Your task to perform on an android device: turn off improve location accuracy Image 0: 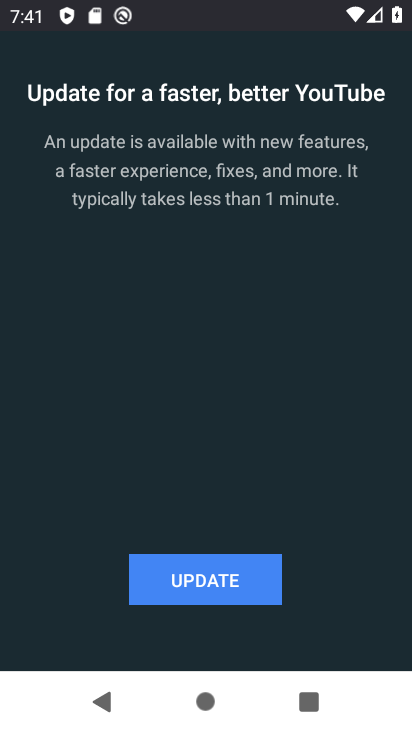
Step 0: press home button
Your task to perform on an android device: turn off improve location accuracy Image 1: 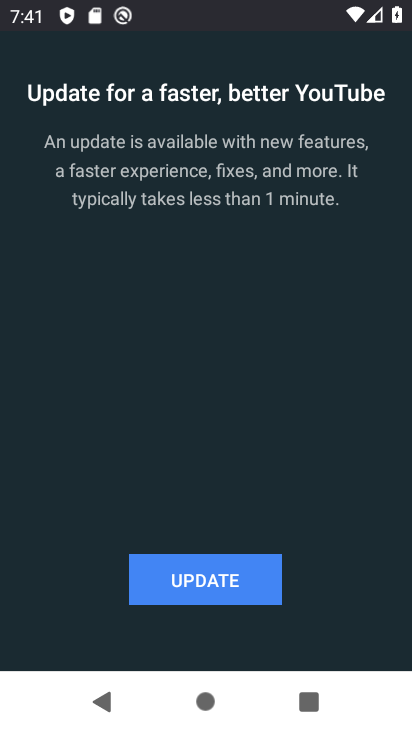
Step 1: press home button
Your task to perform on an android device: turn off improve location accuracy Image 2: 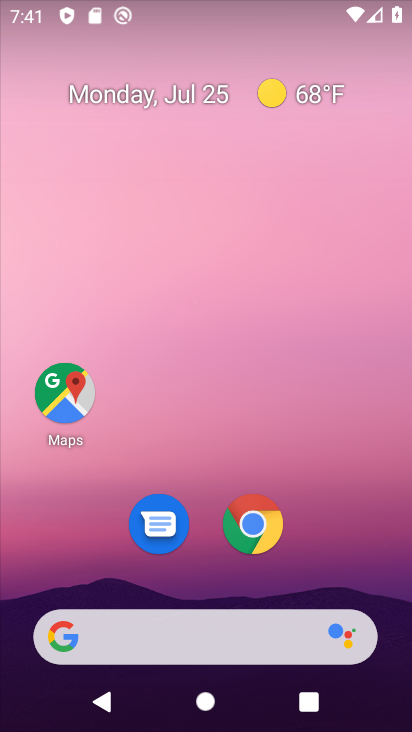
Step 2: drag from (318, 575) to (281, 32)
Your task to perform on an android device: turn off improve location accuracy Image 3: 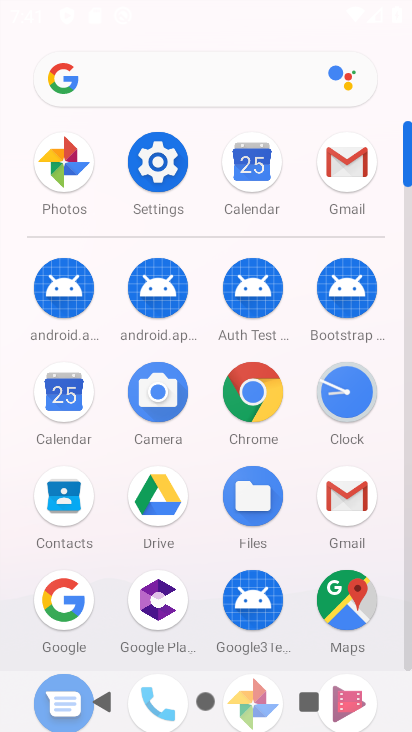
Step 3: click (166, 155)
Your task to perform on an android device: turn off improve location accuracy Image 4: 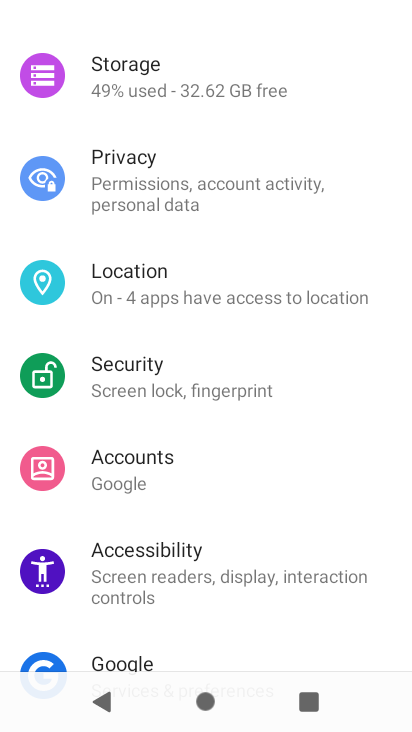
Step 4: click (210, 277)
Your task to perform on an android device: turn off improve location accuracy Image 5: 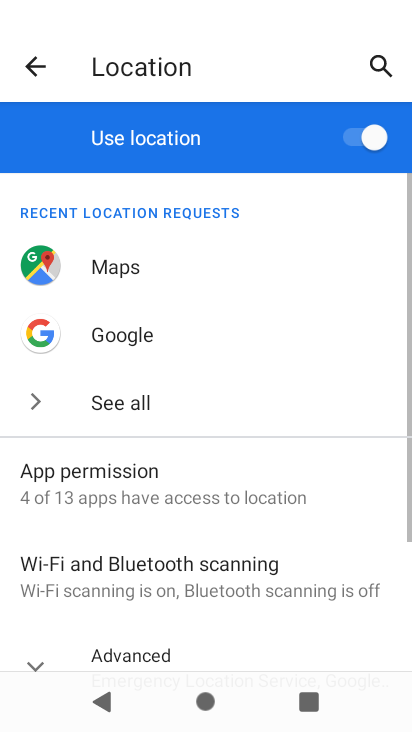
Step 5: click (225, 502)
Your task to perform on an android device: turn off improve location accuracy Image 6: 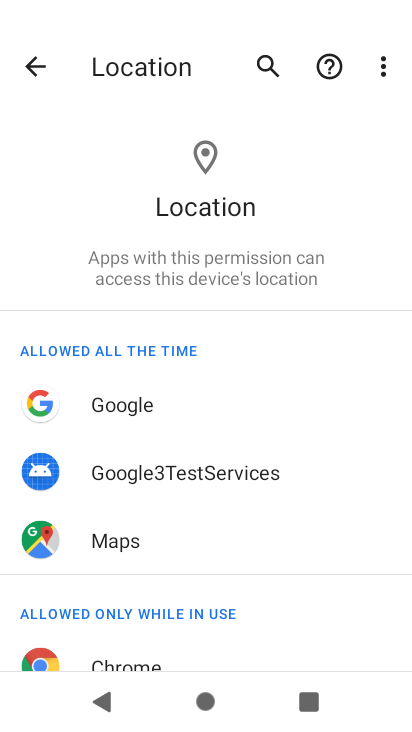
Step 6: click (33, 61)
Your task to perform on an android device: turn off improve location accuracy Image 7: 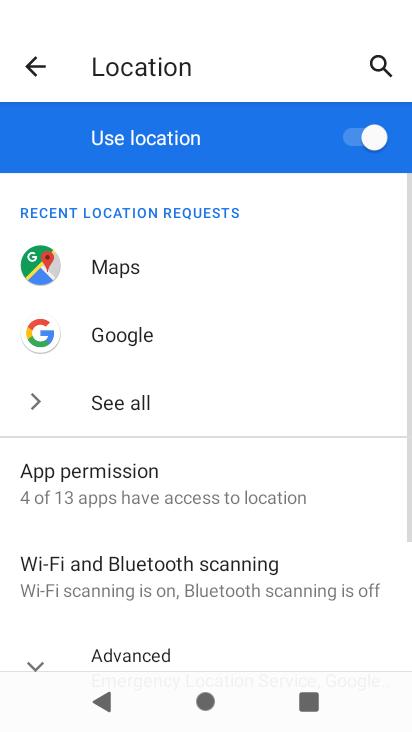
Step 7: drag from (159, 508) to (155, 188)
Your task to perform on an android device: turn off improve location accuracy Image 8: 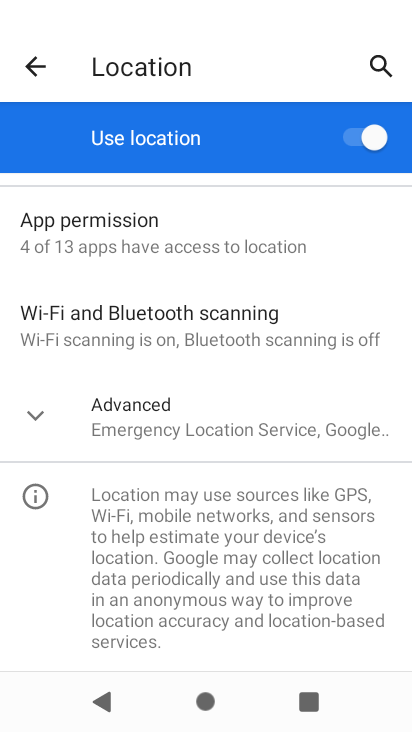
Step 8: click (33, 415)
Your task to perform on an android device: turn off improve location accuracy Image 9: 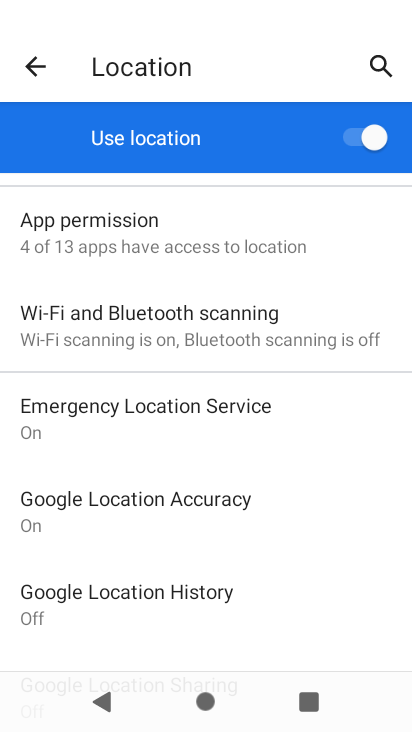
Step 9: click (141, 495)
Your task to perform on an android device: turn off improve location accuracy Image 10: 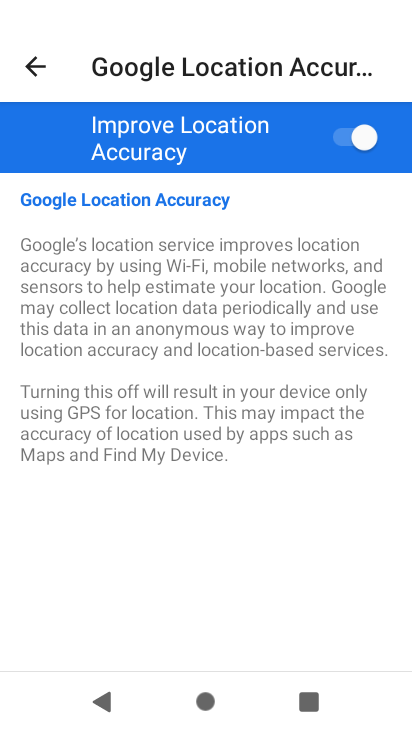
Step 10: click (344, 143)
Your task to perform on an android device: turn off improve location accuracy Image 11: 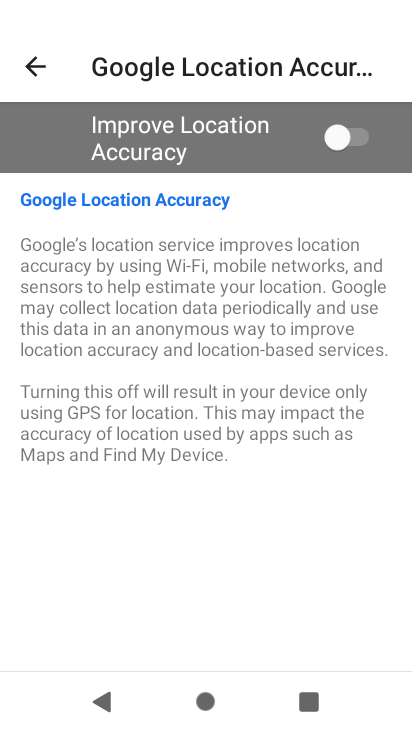
Step 11: task complete